Your task to perform on an android device: When is my next appointment? Image 0: 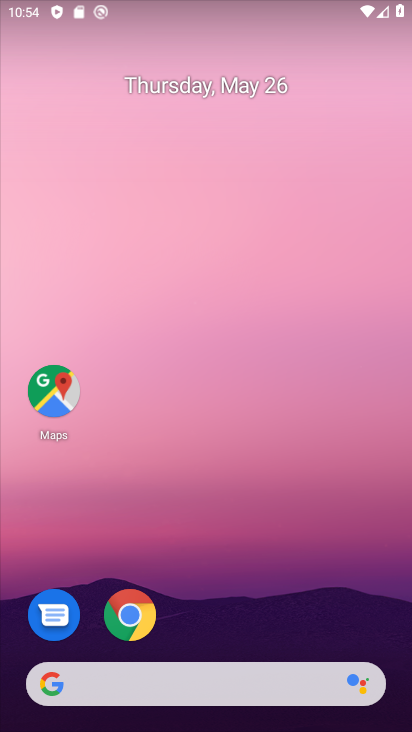
Step 0: drag from (248, 603) to (327, 45)
Your task to perform on an android device: When is my next appointment? Image 1: 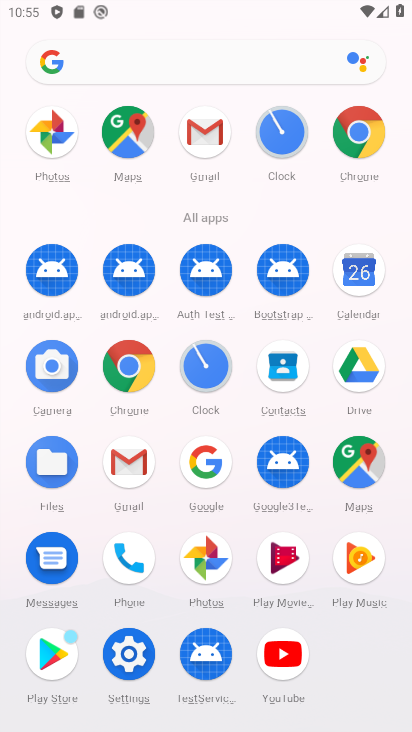
Step 1: click (339, 294)
Your task to perform on an android device: When is my next appointment? Image 2: 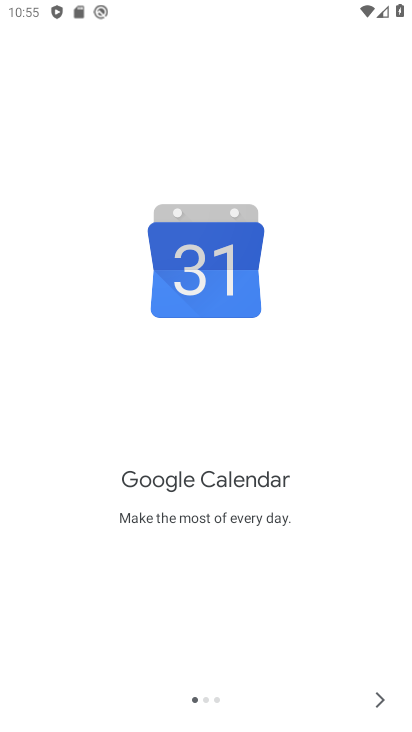
Step 2: click (385, 691)
Your task to perform on an android device: When is my next appointment? Image 3: 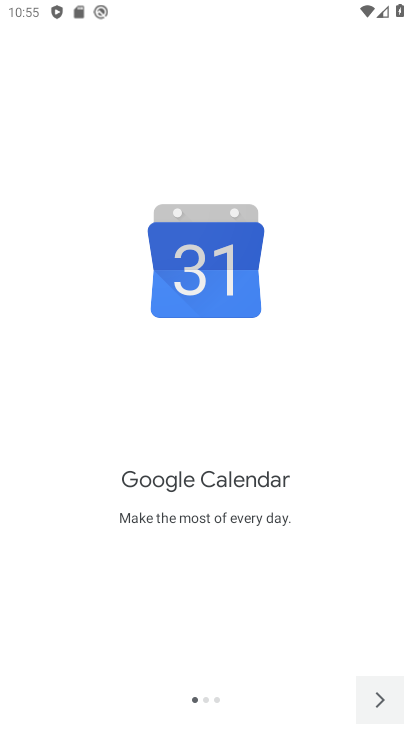
Step 3: click (385, 691)
Your task to perform on an android device: When is my next appointment? Image 4: 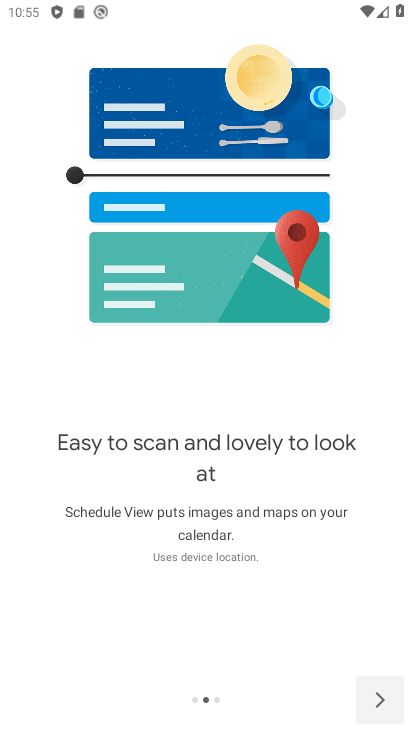
Step 4: click (385, 691)
Your task to perform on an android device: When is my next appointment? Image 5: 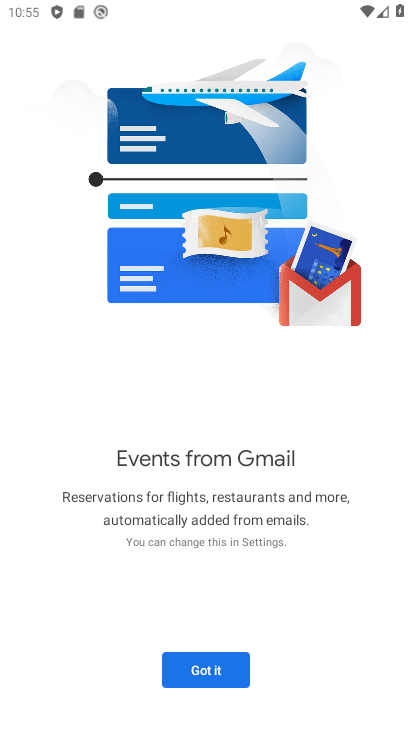
Step 5: click (210, 650)
Your task to perform on an android device: When is my next appointment? Image 6: 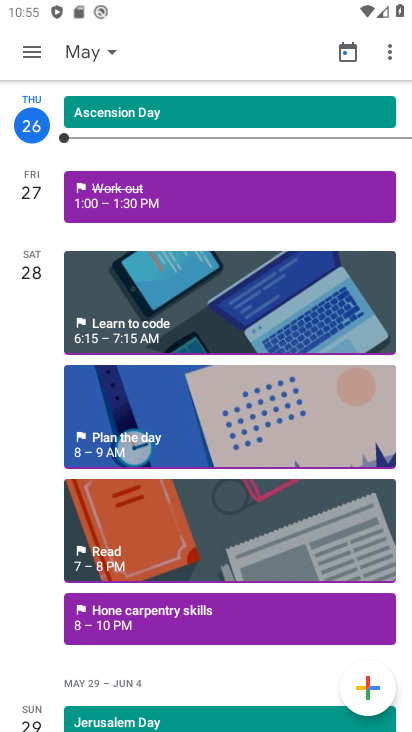
Step 6: click (109, 53)
Your task to perform on an android device: When is my next appointment? Image 7: 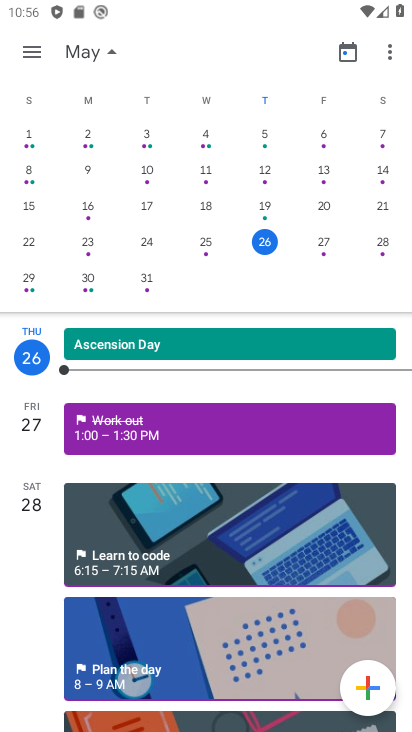
Step 7: click (321, 252)
Your task to perform on an android device: When is my next appointment? Image 8: 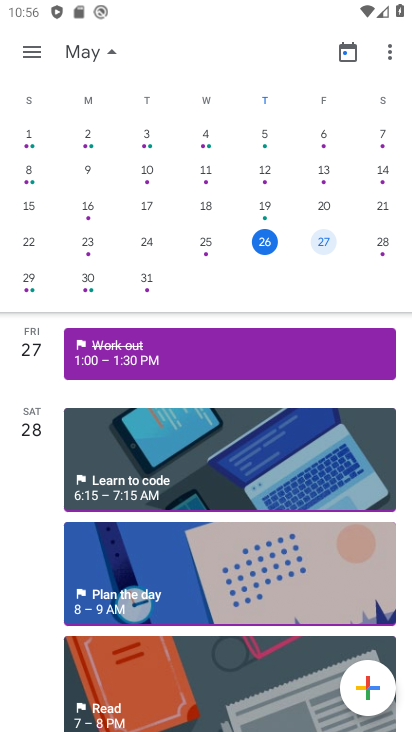
Step 8: click (107, 50)
Your task to perform on an android device: When is my next appointment? Image 9: 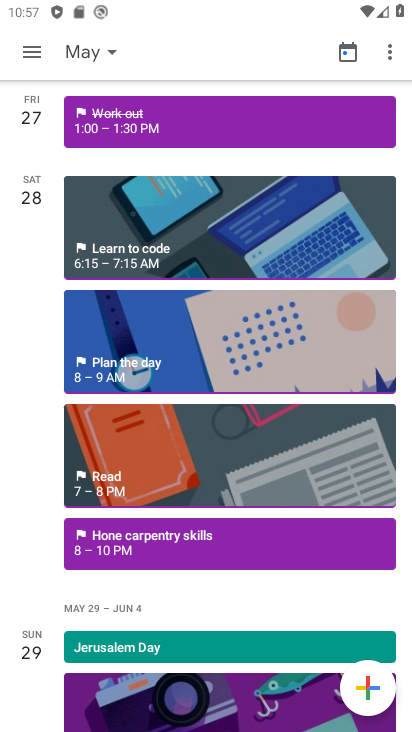
Step 9: task complete